Your task to perform on an android device: Open Android settings Image 0: 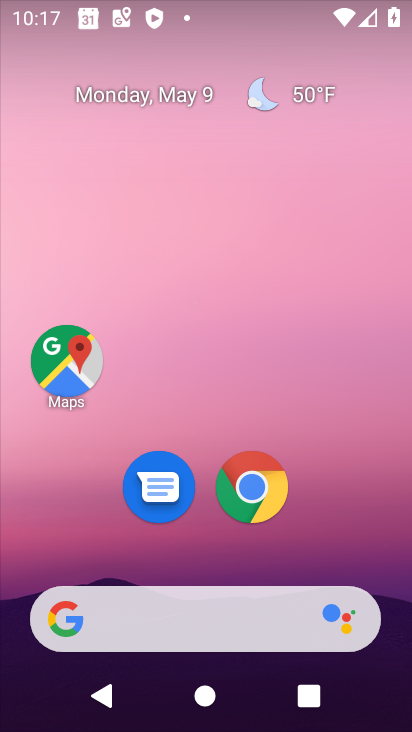
Step 0: press home button
Your task to perform on an android device: Open Android settings Image 1: 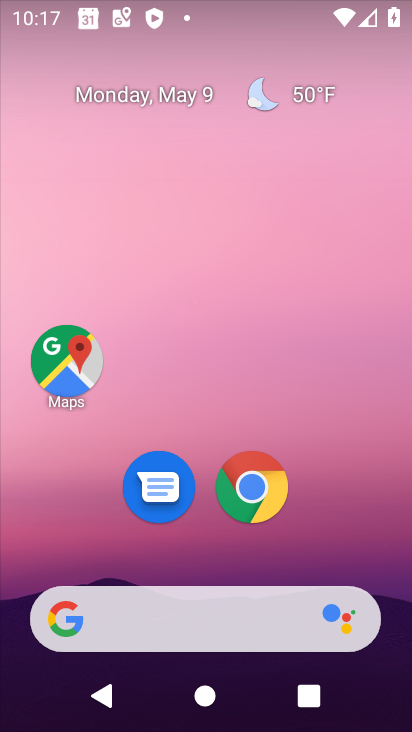
Step 1: drag from (360, 55) to (239, 157)
Your task to perform on an android device: Open Android settings Image 2: 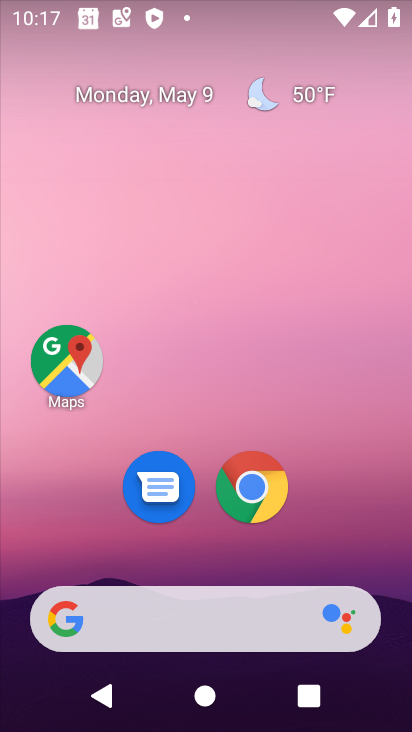
Step 2: drag from (60, 589) to (351, 29)
Your task to perform on an android device: Open Android settings Image 3: 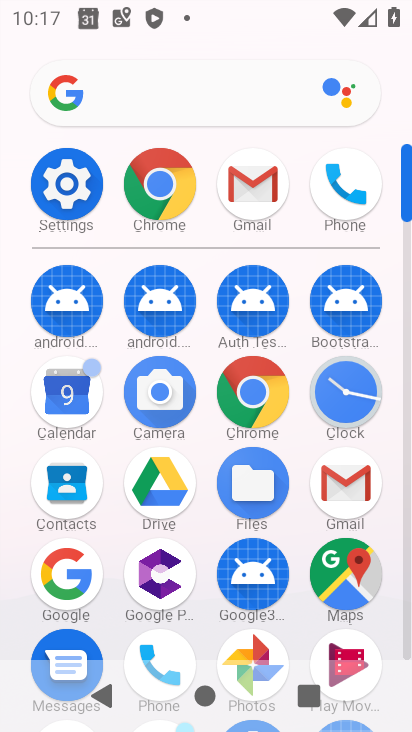
Step 3: click (56, 178)
Your task to perform on an android device: Open Android settings Image 4: 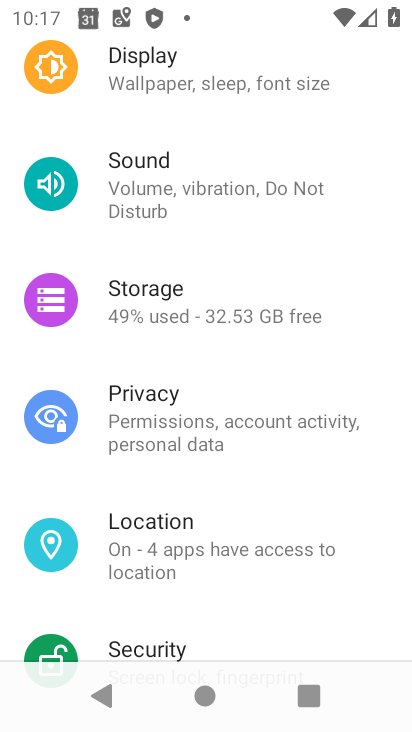
Step 4: drag from (107, 624) to (248, 139)
Your task to perform on an android device: Open Android settings Image 5: 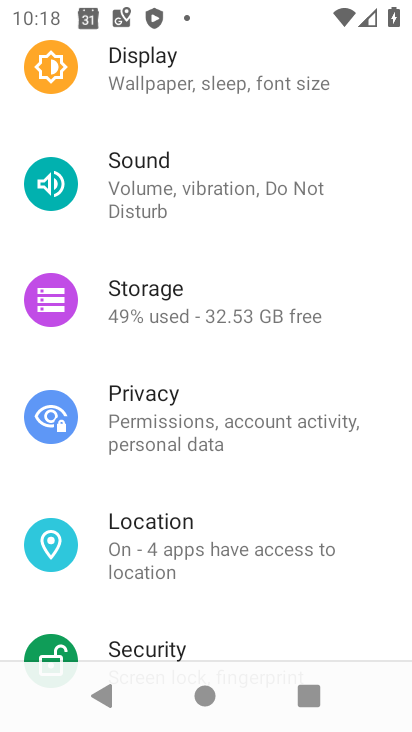
Step 5: drag from (71, 649) to (261, 171)
Your task to perform on an android device: Open Android settings Image 6: 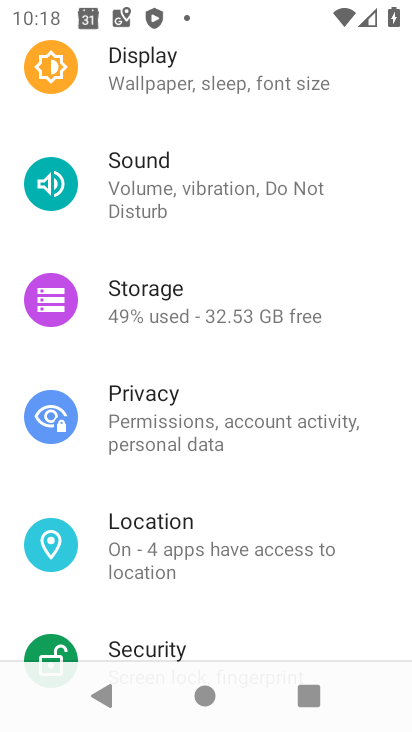
Step 6: drag from (24, 596) to (404, 3)
Your task to perform on an android device: Open Android settings Image 7: 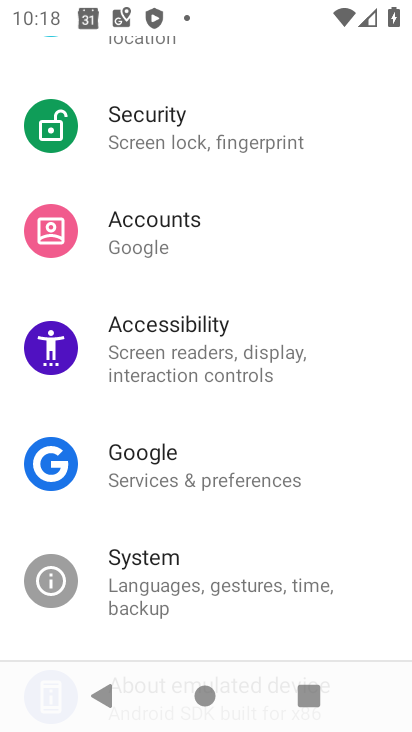
Step 7: drag from (103, 595) to (247, 98)
Your task to perform on an android device: Open Android settings Image 8: 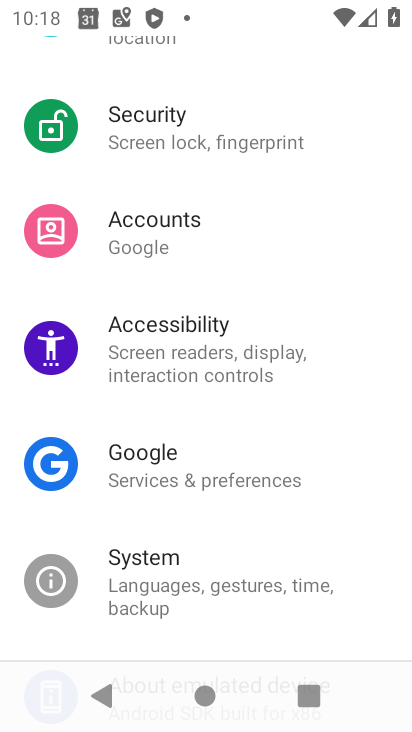
Step 8: drag from (68, 583) to (346, 25)
Your task to perform on an android device: Open Android settings Image 9: 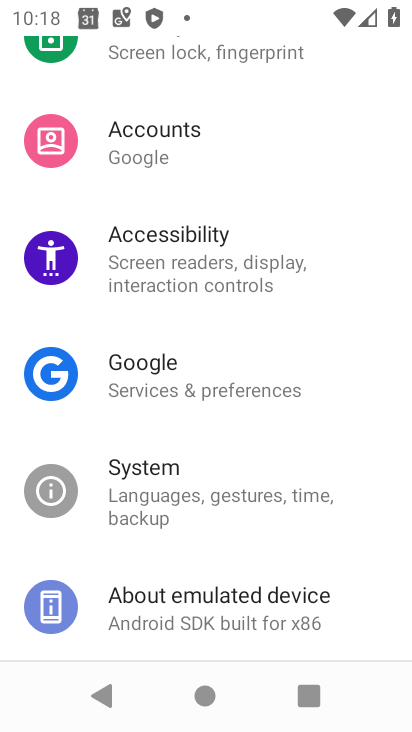
Step 9: click (117, 609)
Your task to perform on an android device: Open Android settings Image 10: 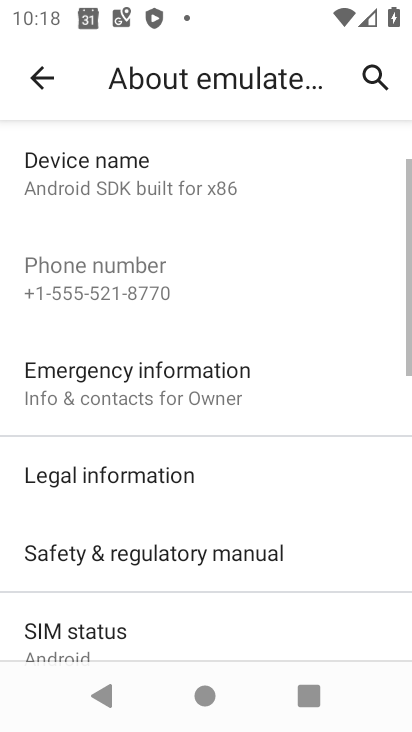
Step 10: task complete